Your task to perform on an android device: turn on the 12-hour format for clock Image 0: 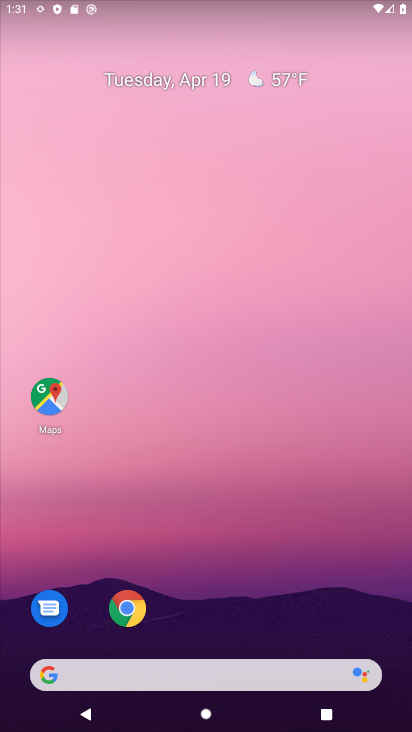
Step 0: drag from (214, 594) to (259, 266)
Your task to perform on an android device: turn on the 12-hour format for clock Image 1: 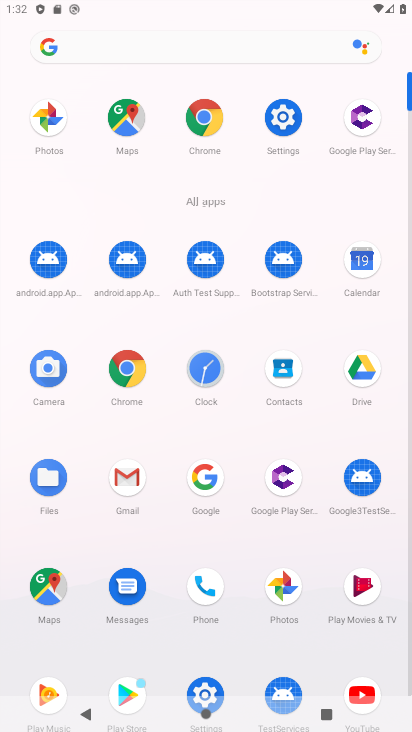
Step 1: click (205, 365)
Your task to perform on an android device: turn on the 12-hour format for clock Image 2: 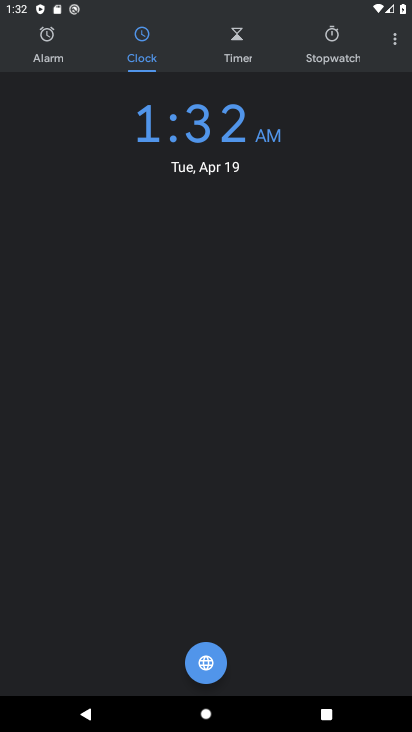
Step 2: click (396, 34)
Your task to perform on an android device: turn on the 12-hour format for clock Image 3: 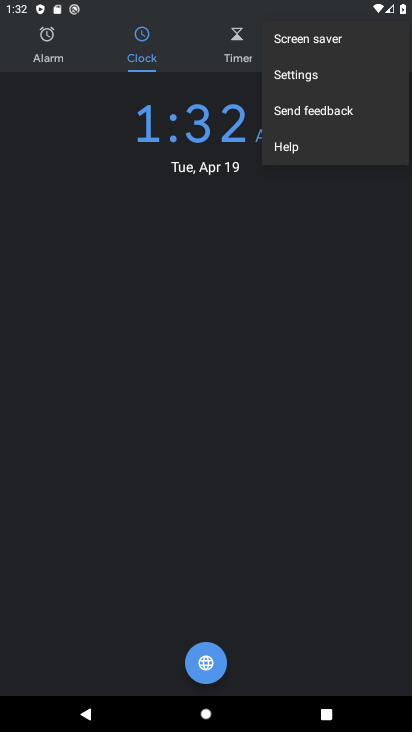
Step 3: click (299, 74)
Your task to perform on an android device: turn on the 12-hour format for clock Image 4: 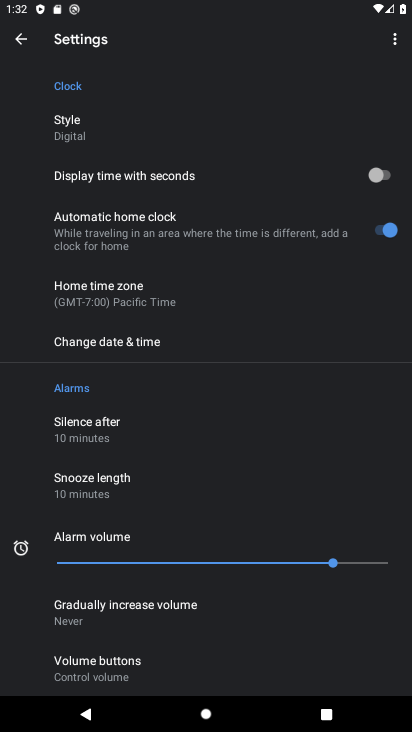
Step 4: click (133, 340)
Your task to perform on an android device: turn on the 12-hour format for clock Image 5: 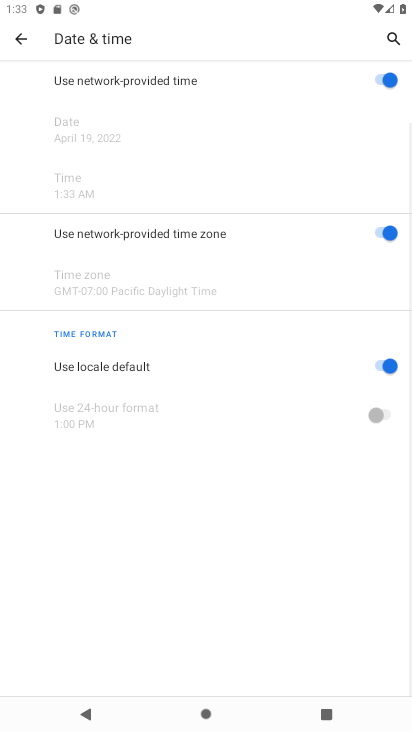
Step 5: task complete